Your task to perform on an android device: See recent photos Image 0: 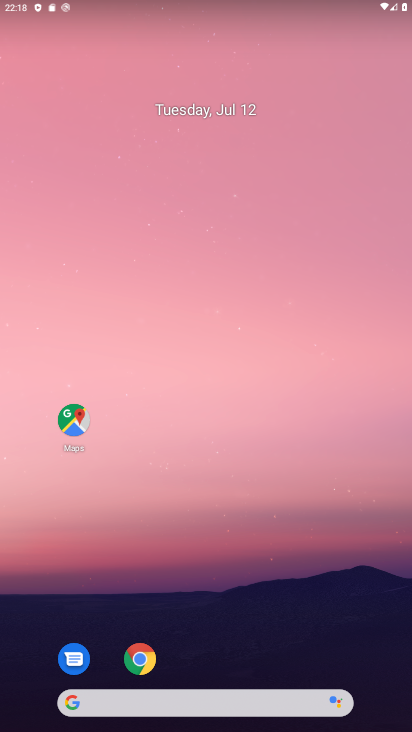
Step 0: drag from (266, 590) to (272, 199)
Your task to perform on an android device: See recent photos Image 1: 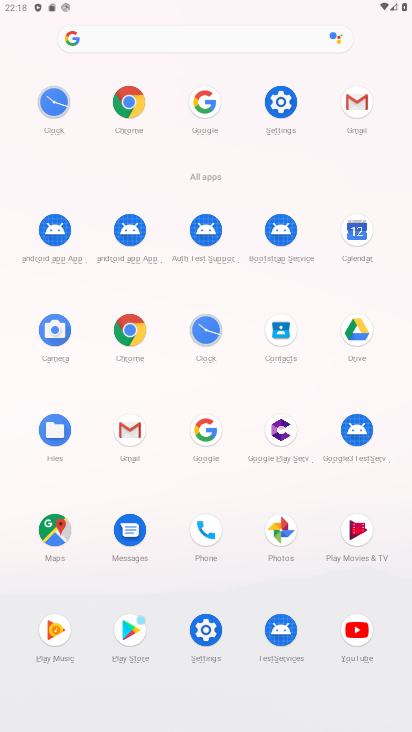
Step 1: click (261, 517)
Your task to perform on an android device: See recent photos Image 2: 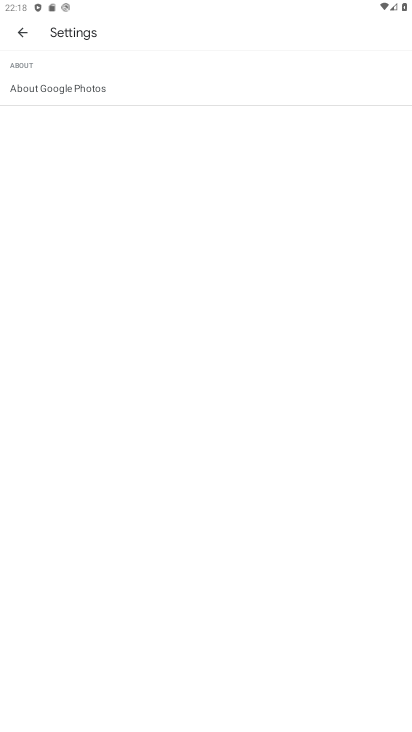
Step 2: click (13, 29)
Your task to perform on an android device: See recent photos Image 3: 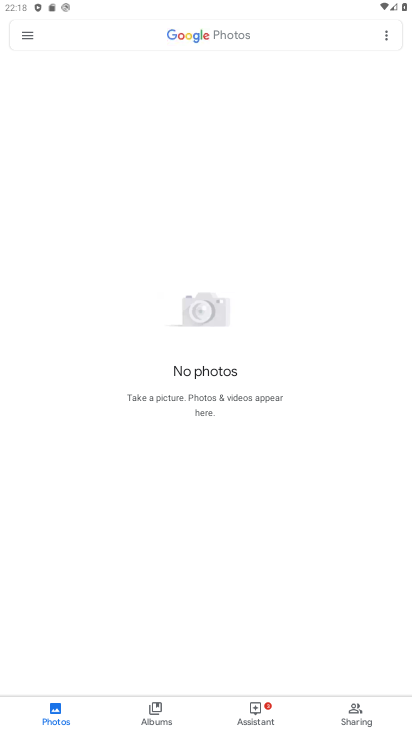
Step 3: click (149, 702)
Your task to perform on an android device: See recent photos Image 4: 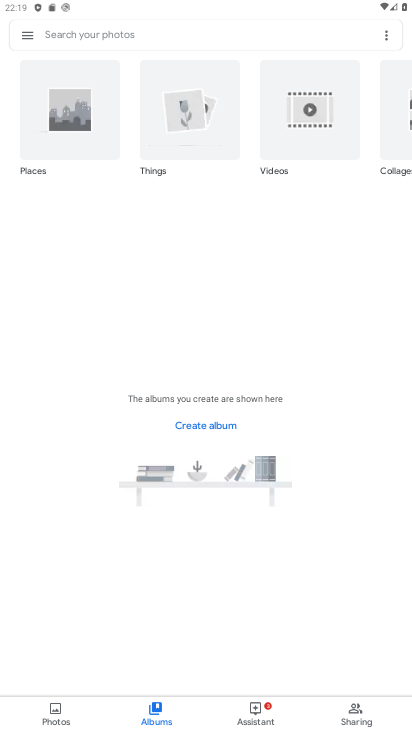
Step 4: task complete